Your task to perform on an android device: allow cookies in the chrome app Image 0: 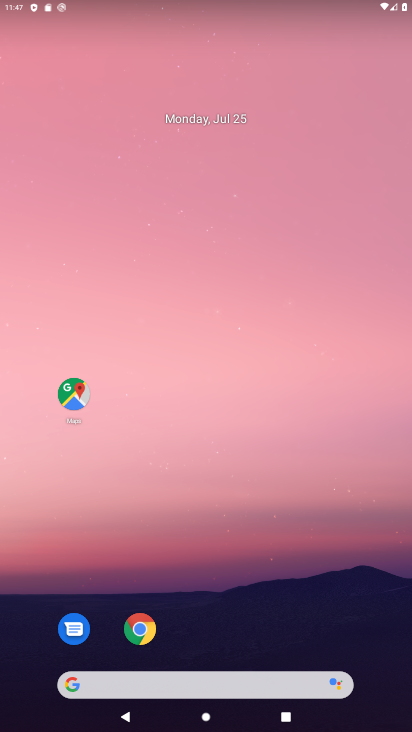
Step 0: drag from (175, 487) to (166, 215)
Your task to perform on an android device: allow cookies in the chrome app Image 1: 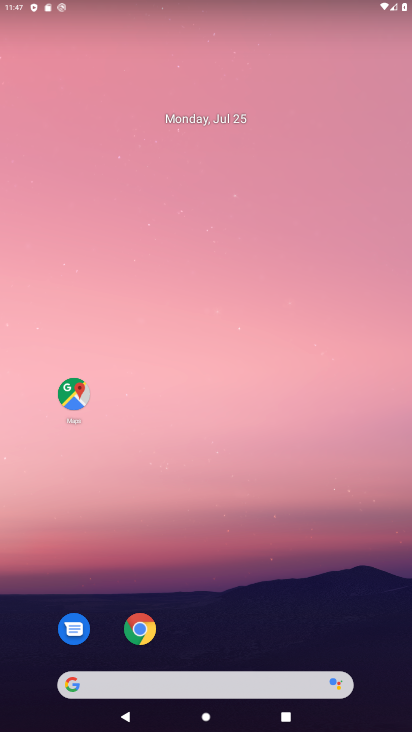
Step 1: drag from (276, 378) to (228, 101)
Your task to perform on an android device: allow cookies in the chrome app Image 2: 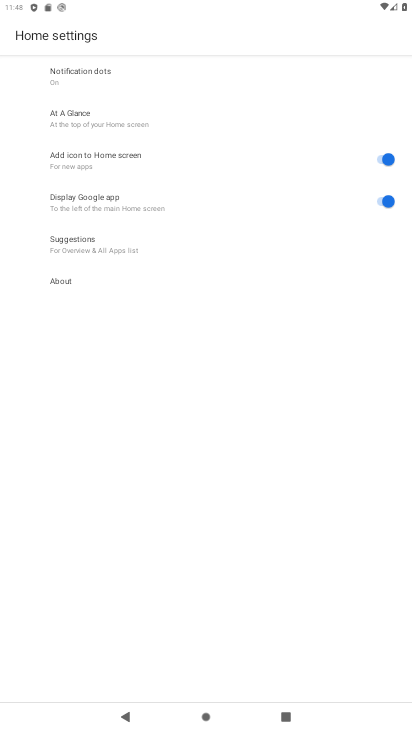
Step 2: drag from (241, 240) to (188, 0)
Your task to perform on an android device: allow cookies in the chrome app Image 3: 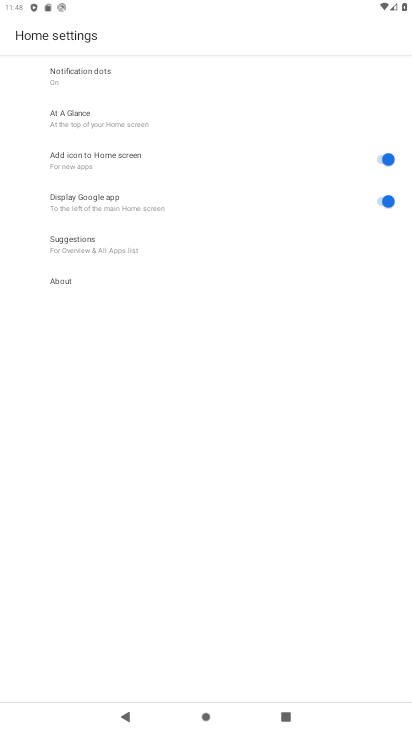
Step 3: drag from (126, 63) to (126, 6)
Your task to perform on an android device: allow cookies in the chrome app Image 4: 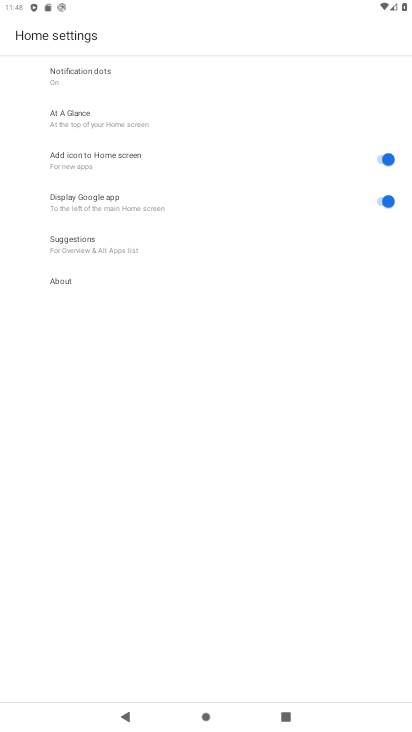
Step 4: click (104, 91)
Your task to perform on an android device: allow cookies in the chrome app Image 5: 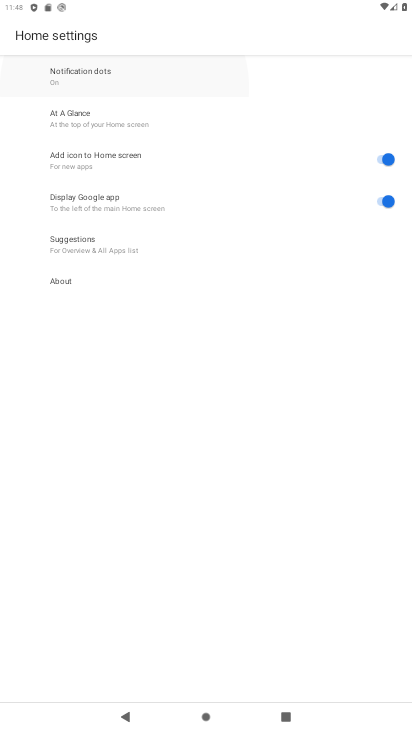
Step 5: drag from (231, 241) to (268, 1)
Your task to perform on an android device: allow cookies in the chrome app Image 6: 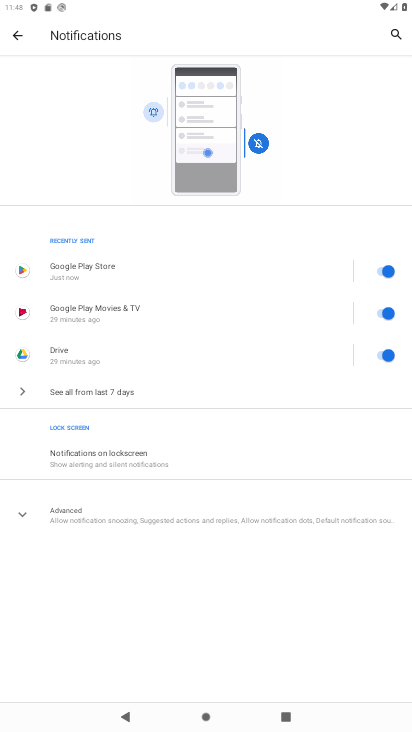
Step 6: drag from (212, 4) to (273, 23)
Your task to perform on an android device: allow cookies in the chrome app Image 7: 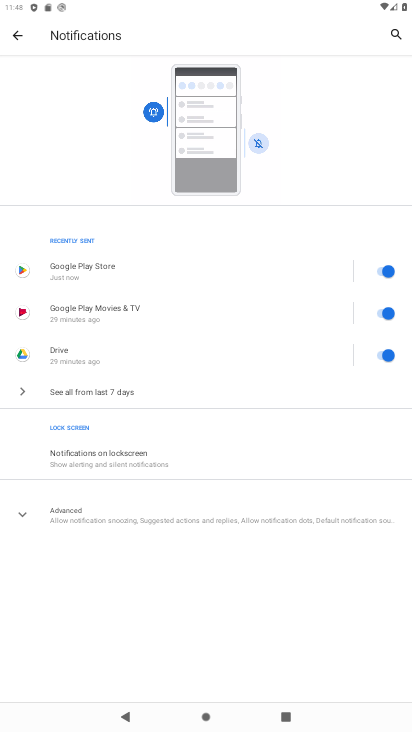
Step 7: click (11, 25)
Your task to perform on an android device: allow cookies in the chrome app Image 8: 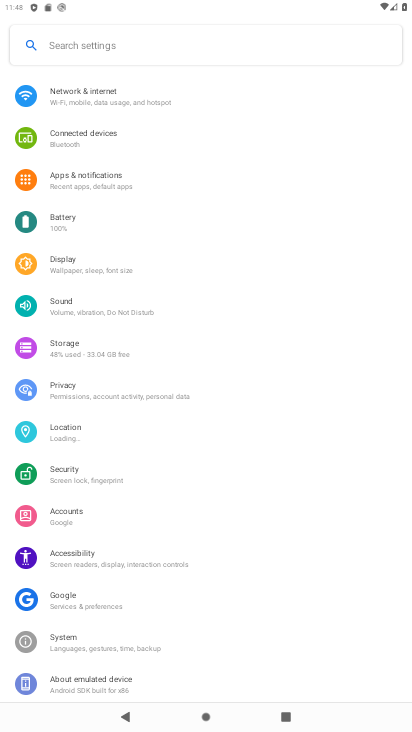
Step 8: click (19, 36)
Your task to perform on an android device: allow cookies in the chrome app Image 9: 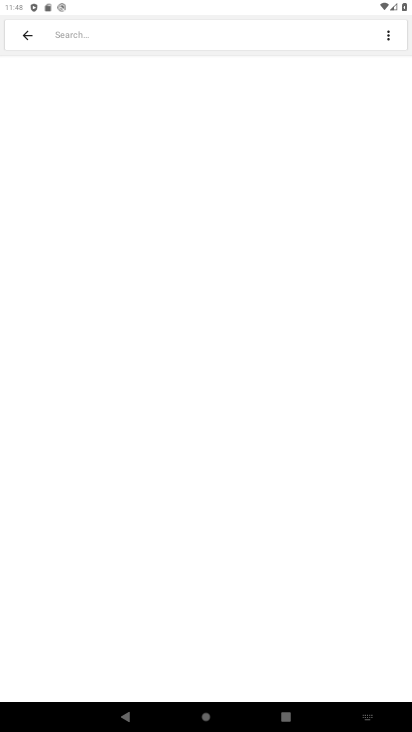
Step 9: press back button
Your task to perform on an android device: allow cookies in the chrome app Image 10: 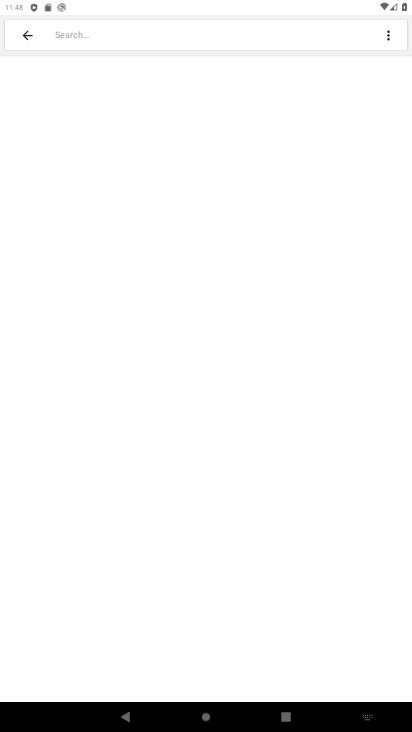
Step 10: press back button
Your task to perform on an android device: allow cookies in the chrome app Image 11: 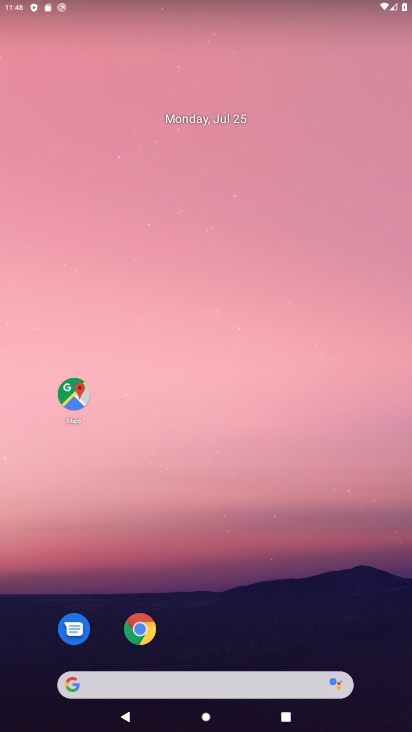
Step 11: drag from (254, 485) to (214, 174)
Your task to perform on an android device: allow cookies in the chrome app Image 12: 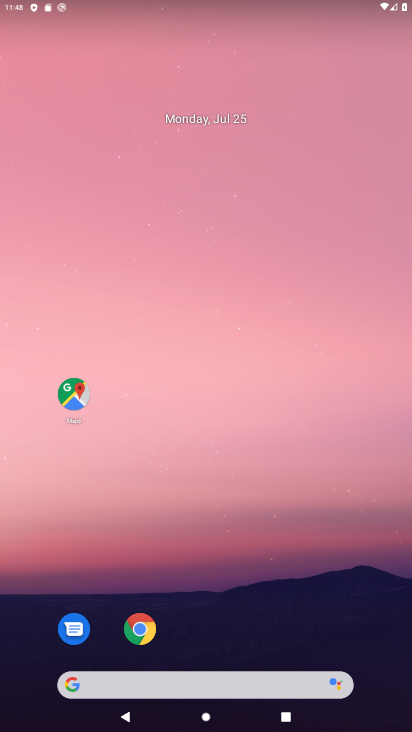
Step 12: drag from (219, 317) to (190, 135)
Your task to perform on an android device: allow cookies in the chrome app Image 13: 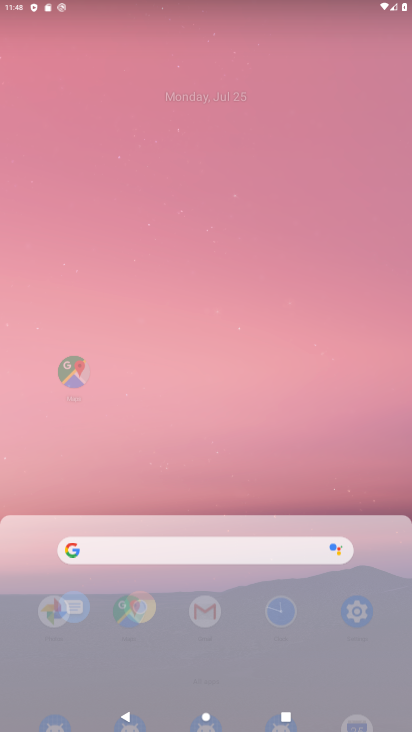
Step 13: drag from (198, 358) to (239, 24)
Your task to perform on an android device: allow cookies in the chrome app Image 14: 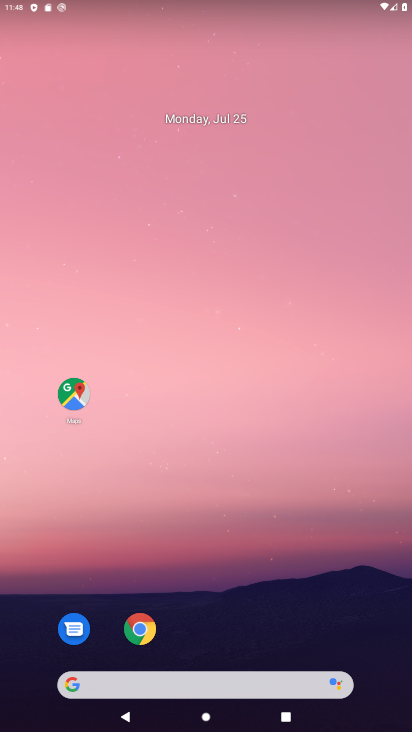
Step 14: drag from (196, 175) to (195, 128)
Your task to perform on an android device: allow cookies in the chrome app Image 15: 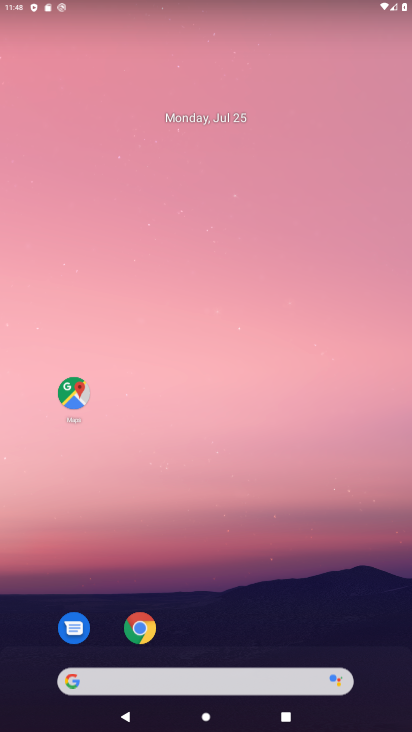
Step 15: drag from (215, 334) to (191, 87)
Your task to perform on an android device: allow cookies in the chrome app Image 16: 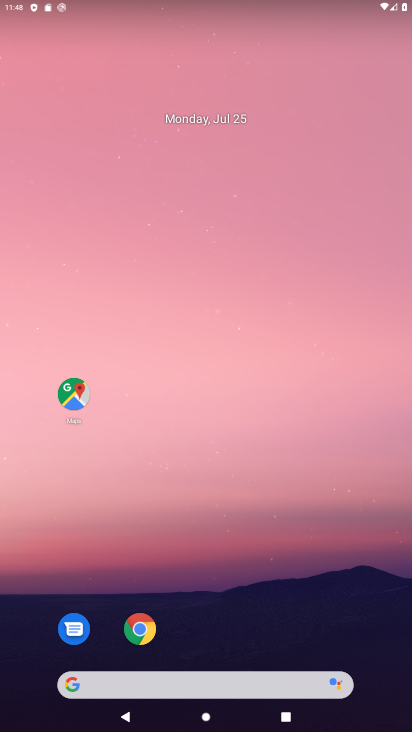
Step 16: drag from (154, 301) to (154, 230)
Your task to perform on an android device: allow cookies in the chrome app Image 17: 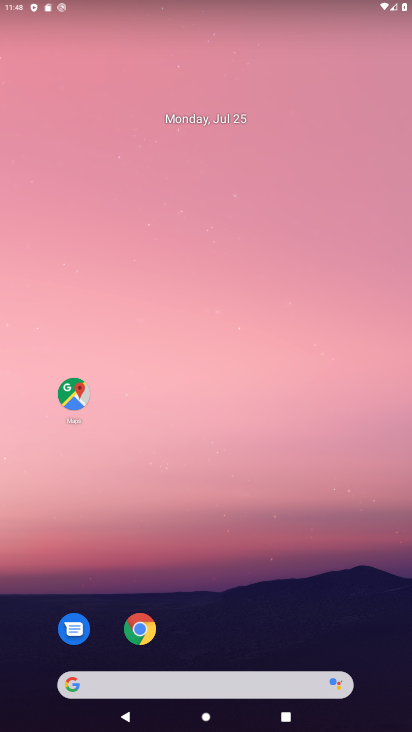
Step 17: click (147, 61)
Your task to perform on an android device: allow cookies in the chrome app Image 18: 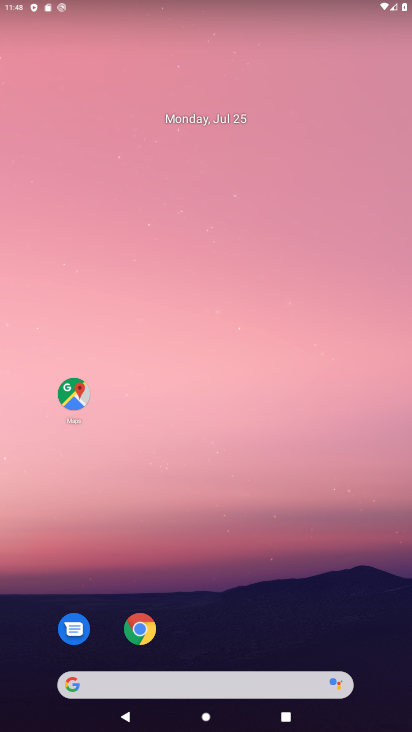
Step 18: drag from (131, 327) to (139, 43)
Your task to perform on an android device: allow cookies in the chrome app Image 19: 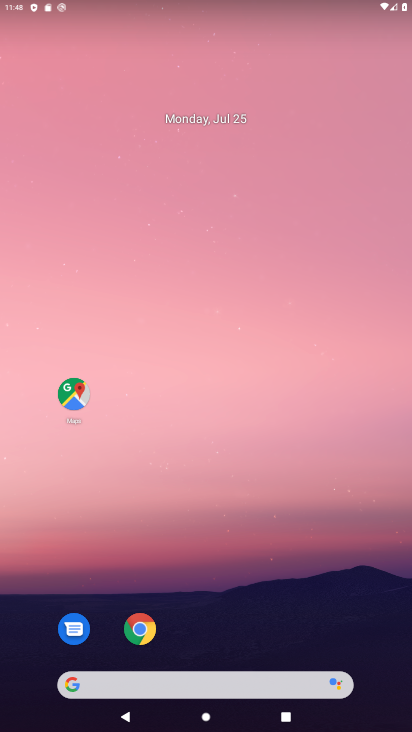
Step 19: drag from (224, 415) to (184, 2)
Your task to perform on an android device: allow cookies in the chrome app Image 20: 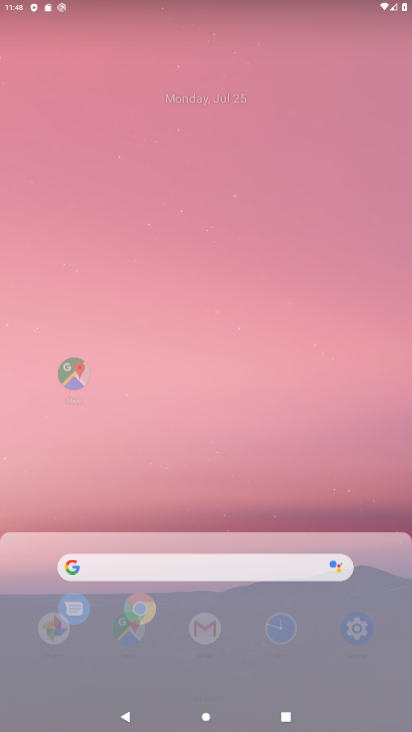
Step 20: drag from (209, 306) to (186, 18)
Your task to perform on an android device: allow cookies in the chrome app Image 21: 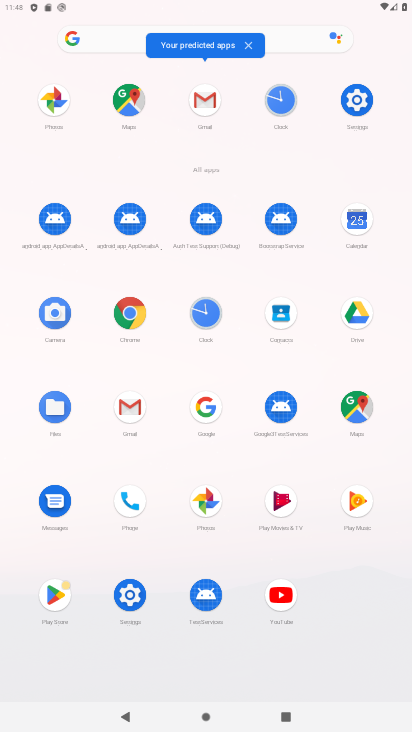
Step 21: click (124, 326)
Your task to perform on an android device: allow cookies in the chrome app Image 22: 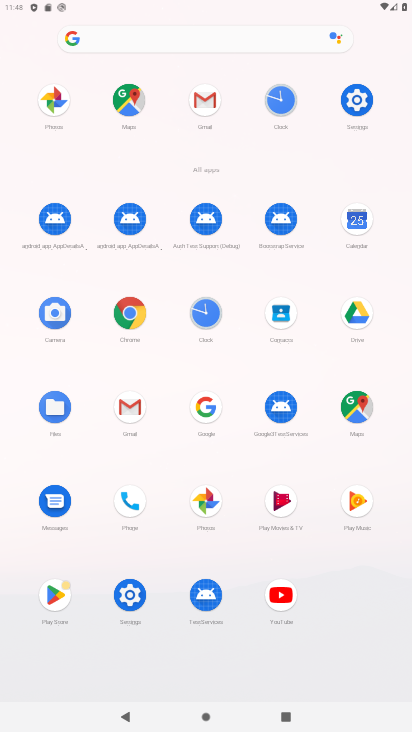
Step 22: click (125, 325)
Your task to perform on an android device: allow cookies in the chrome app Image 23: 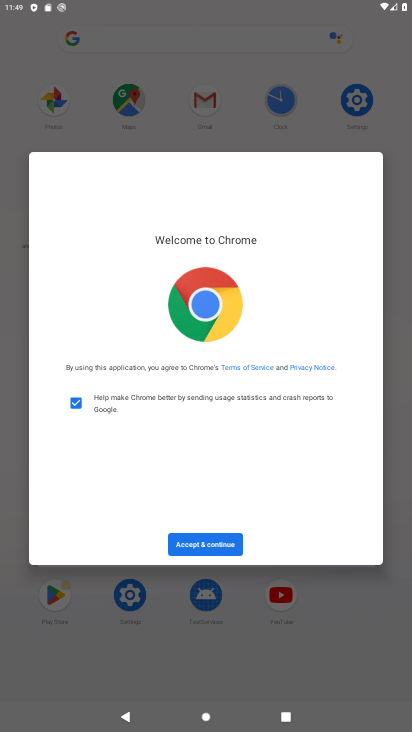
Step 23: click (190, 539)
Your task to perform on an android device: allow cookies in the chrome app Image 24: 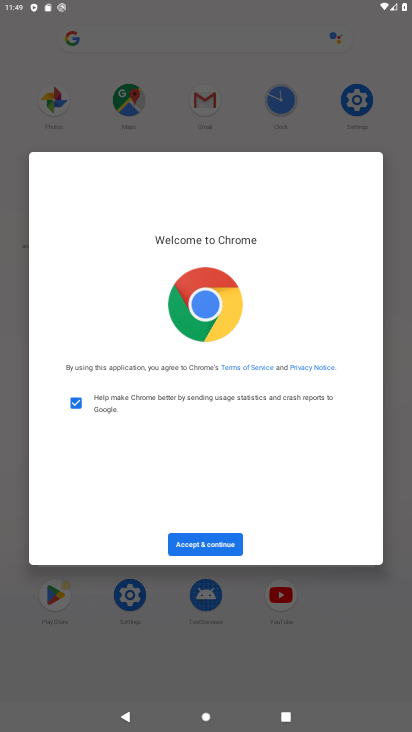
Step 24: click (197, 543)
Your task to perform on an android device: allow cookies in the chrome app Image 25: 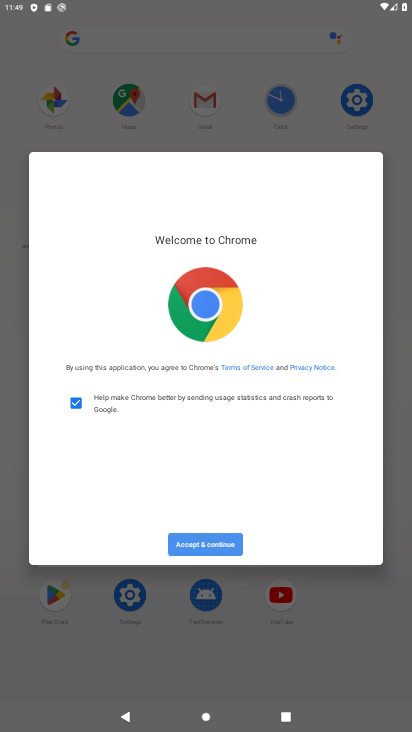
Step 25: click (201, 547)
Your task to perform on an android device: allow cookies in the chrome app Image 26: 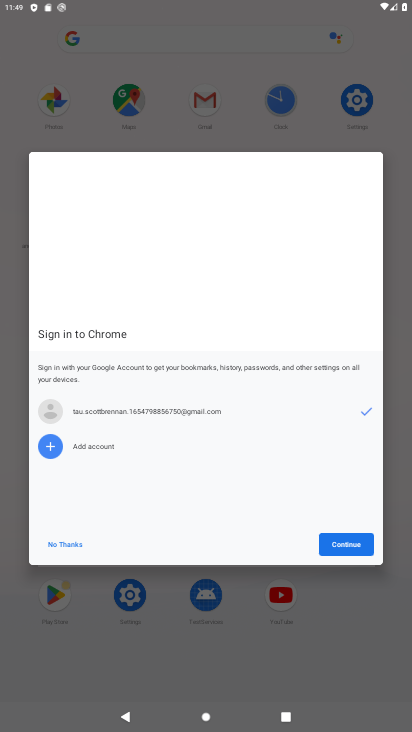
Step 26: click (58, 546)
Your task to perform on an android device: allow cookies in the chrome app Image 27: 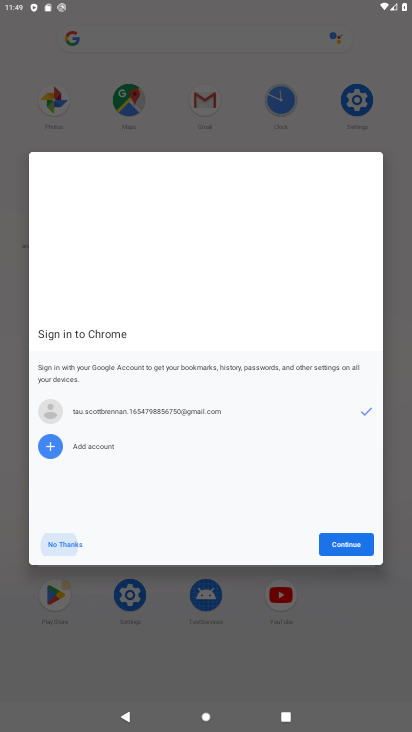
Step 27: click (65, 542)
Your task to perform on an android device: allow cookies in the chrome app Image 28: 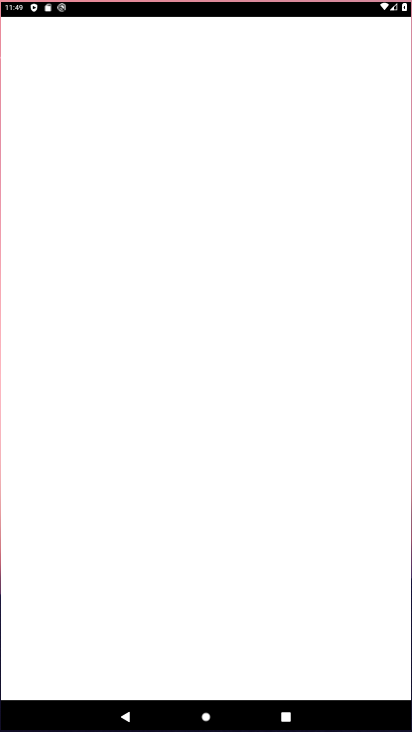
Step 28: click (70, 542)
Your task to perform on an android device: allow cookies in the chrome app Image 29: 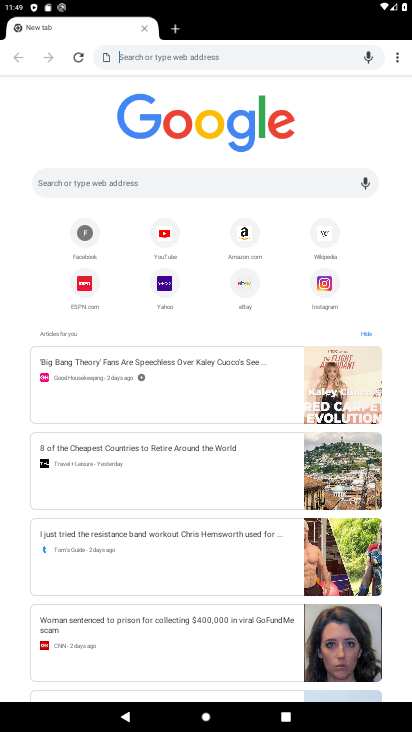
Step 29: click (397, 55)
Your task to perform on an android device: allow cookies in the chrome app Image 30: 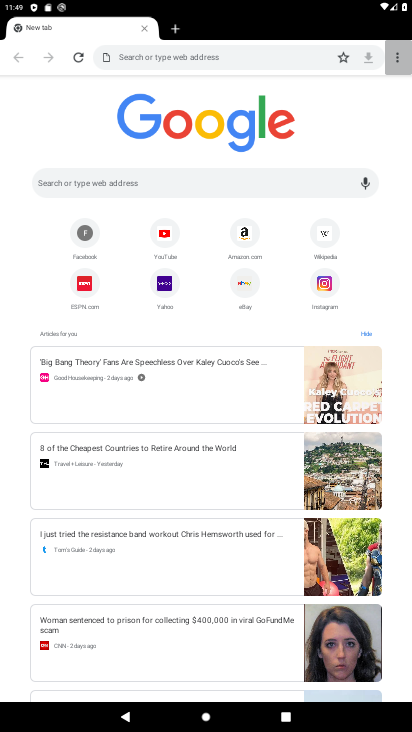
Step 30: click (397, 55)
Your task to perform on an android device: allow cookies in the chrome app Image 31: 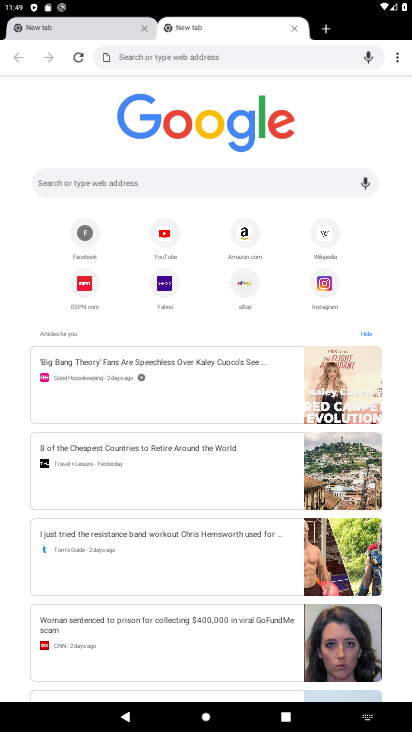
Step 31: drag from (394, 55) to (270, 262)
Your task to perform on an android device: allow cookies in the chrome app Image 32: 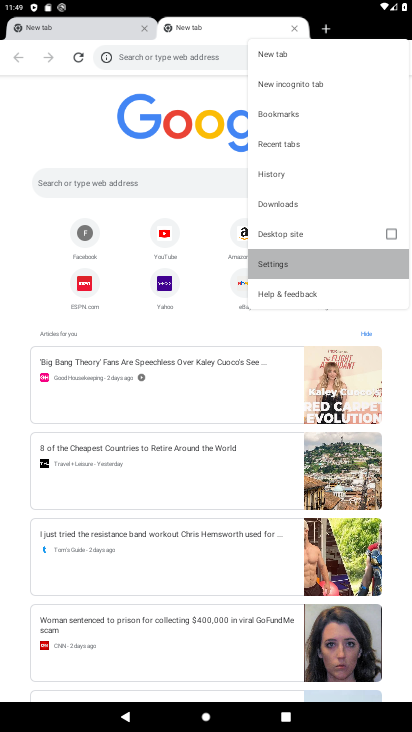
Step 32: click (274, 267)
Your task to perform on an android device: allow cookies in the chrome app Image 33: 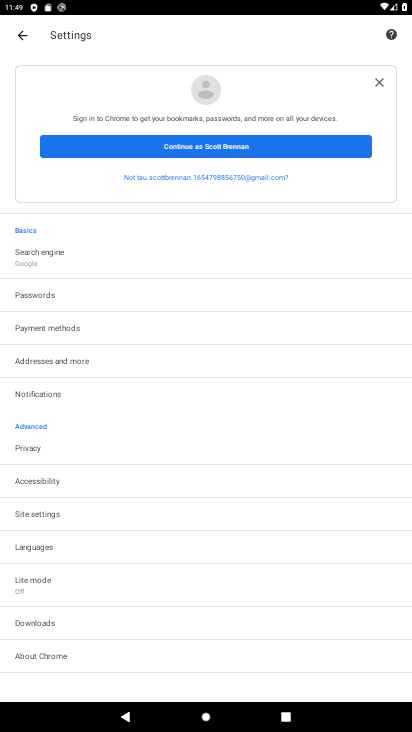
Step 33: click (33, 509)
Your task to perform on an android device: allow cookies in the chrome app Image 34: 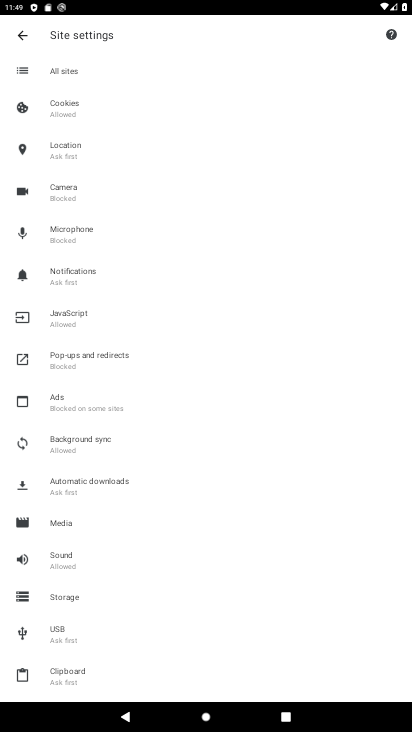
Step 34: click (37, 509)
Your task to perform on an android device: allow cookies in the chrome app Image 35: 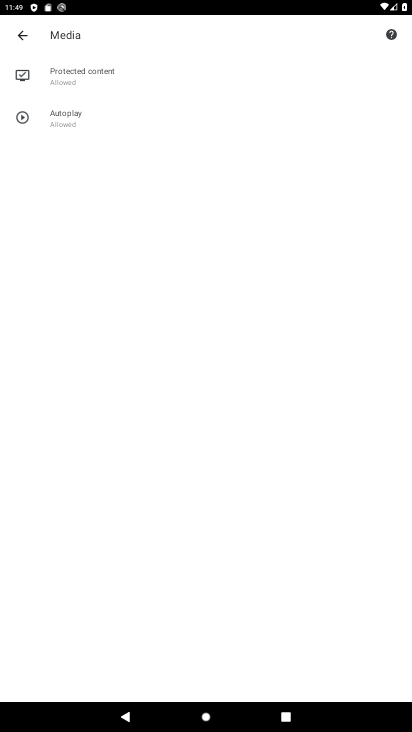
Step 35: click (24, 26)
Your task to perform on an android device: allow cookies in the chrome app Image 36: 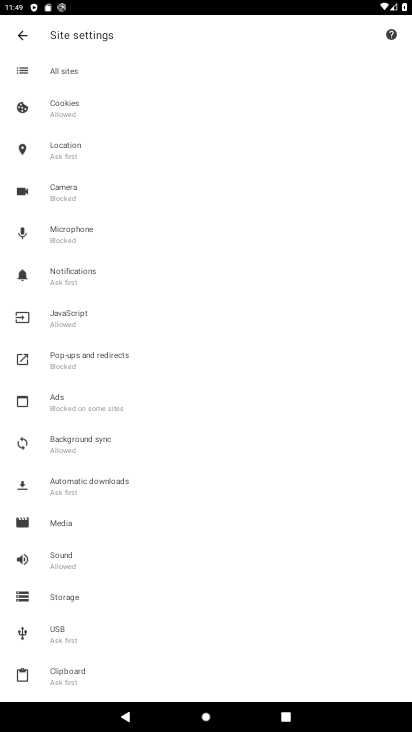
Step 36: click (81, 103)
Your task to perform on an android device: allow cookies in the chrome app Image 37: 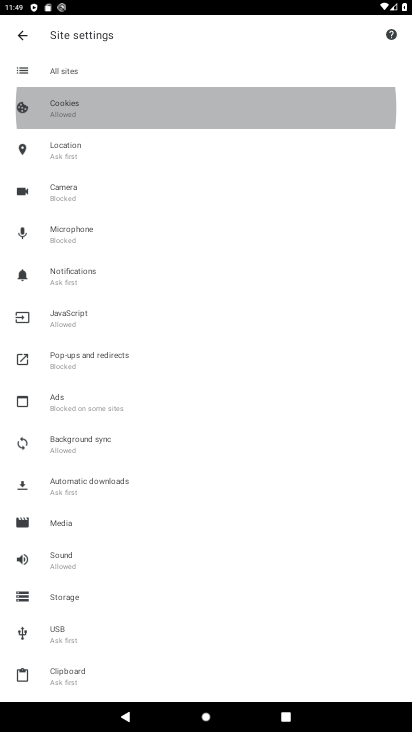
Step 37: click (66, 96)
Your task to perform on an android device: allow cookies in the chrome app Image 38: 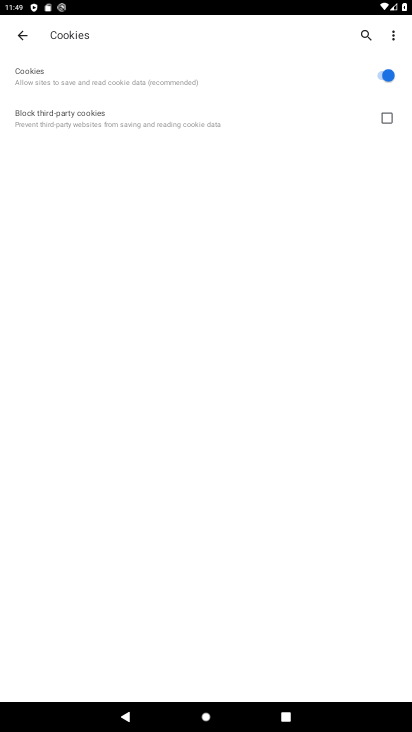
Step 38: click (65, 96)
Your task to perform on an android device: allow cookies in the chrome app Image 39: 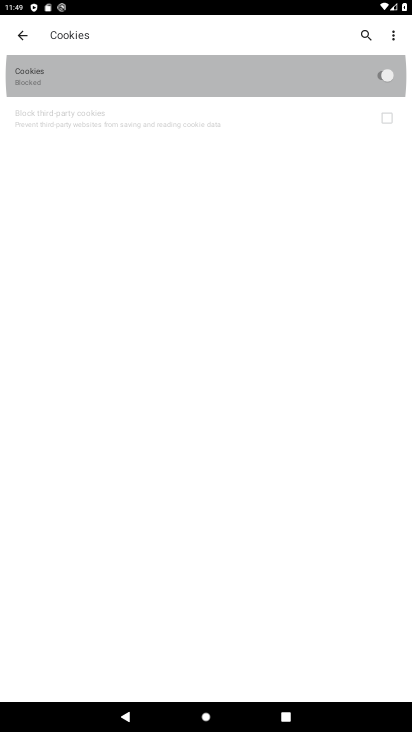
Step 39: click (65, 96)
Your task to perform on an android device: allow cookies in the chrome app Image 40: 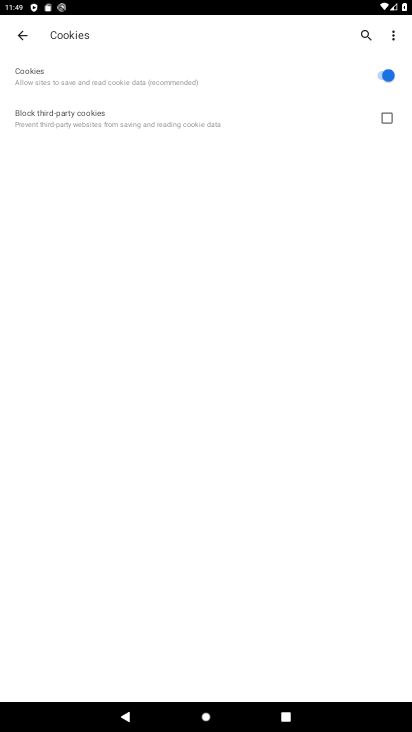
Step 40: task complete